Your task to perform on an android device: Open internet settings Image 0: 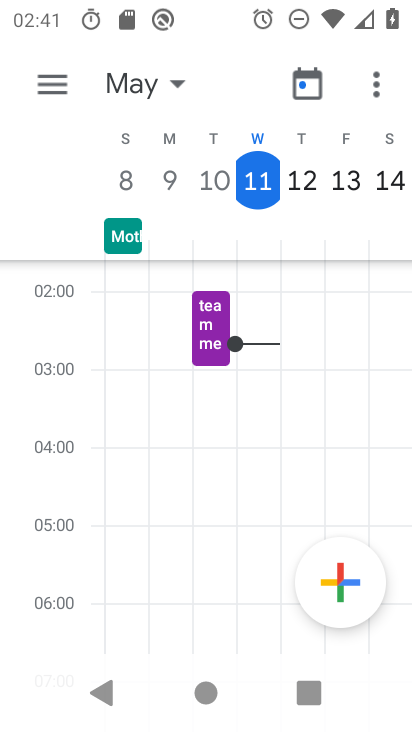
Step 0: press home button
Your task to perform on an android device: Open internet settings Image 1: 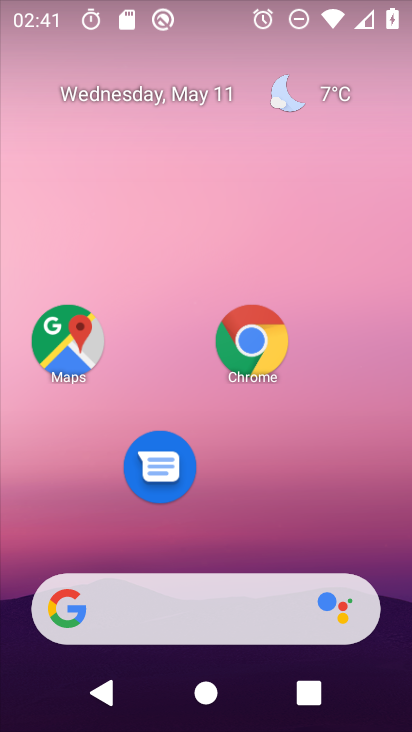
Step 1: drag from (188, 571) to (306, 172)
Your task to perform on an android device: Open internet settings Image 2: 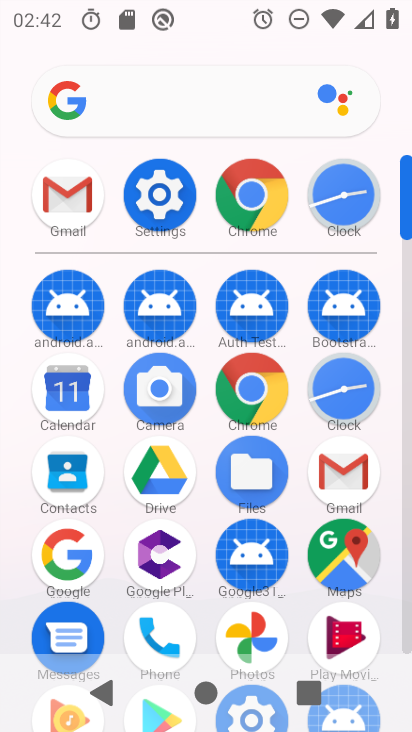
Step 2: click (153, 208)
Your task to perform on an android device: Open internet settings Image 3: 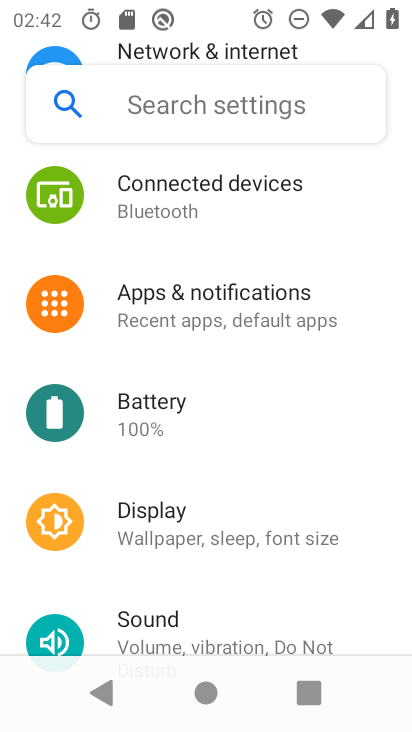
Step 3: drag from (332, 234) to (273, 629)
Your task to perform on an android device: Open internet settings Image 4: 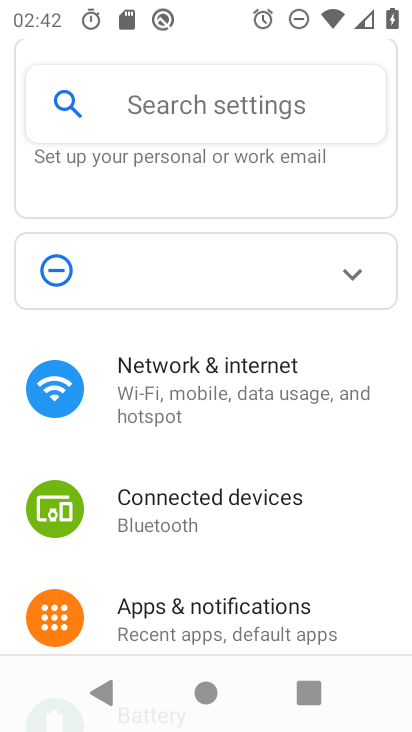
Step 4: click (242, 376)
Your task to perform on an android device: Open internet settings Image 5: 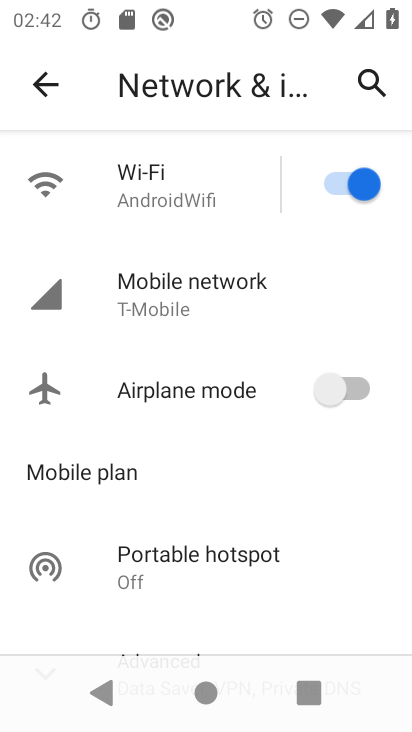
Step 5: task complete